Your task to perform on an android device: See recent photos Image 0: 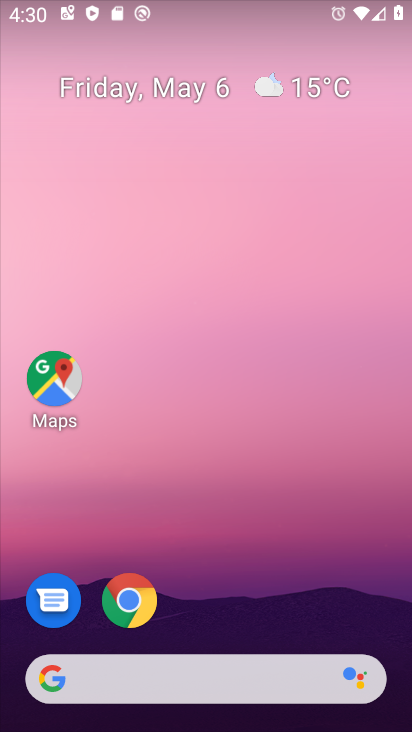
Step 0: drag from (219, 623) to (244, 62)
Your task to perform on an android device: See recent photos Image 1: 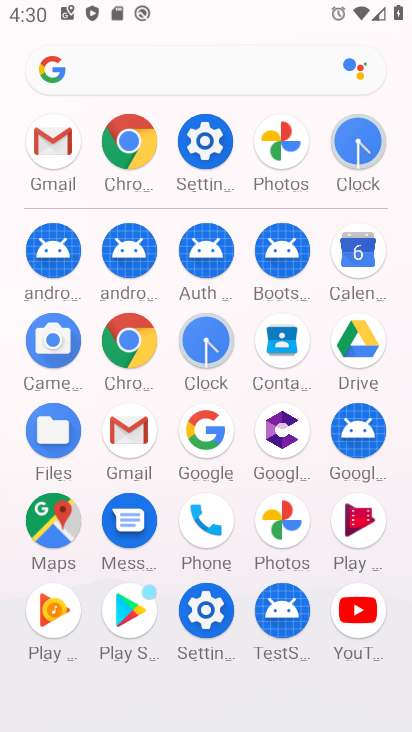
Step 1: click (267, 521)
Your task to perform on an android device: See recent photos Image 2: 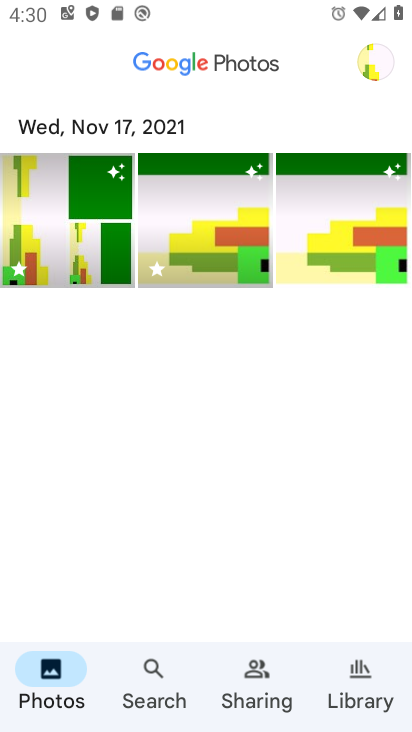
Step 2: click (99, 263)
Your task to perform on an android device: See recent photos Image 3: 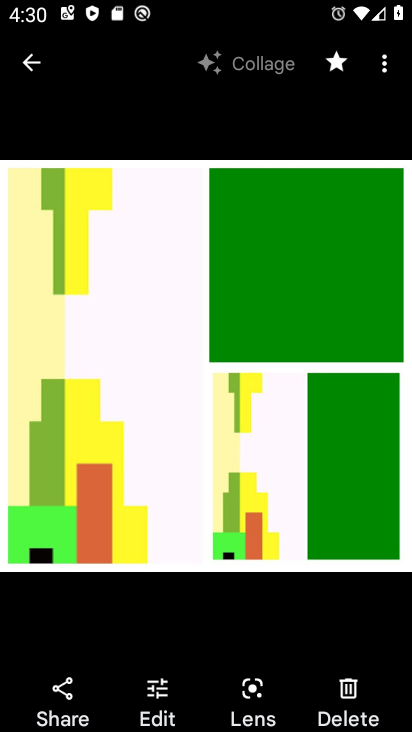
Step 3: task complete